Your task to perform on an android device: turn off javascript in the chrome app Image 0: 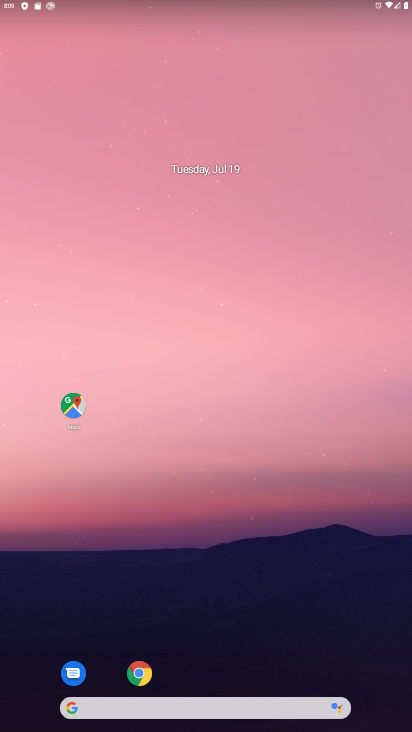
Step 0: drag from (259, 697) to (223, 302)
Your task to perform on an android device: turn off javascript in the chrome app Image 1: 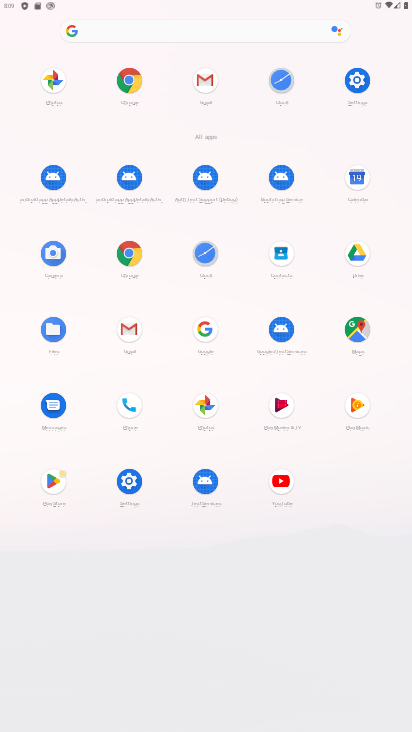
Step 1: click (126, 251)
Your task to perform on an android device: turn off javascript in the chrome app Image 2: 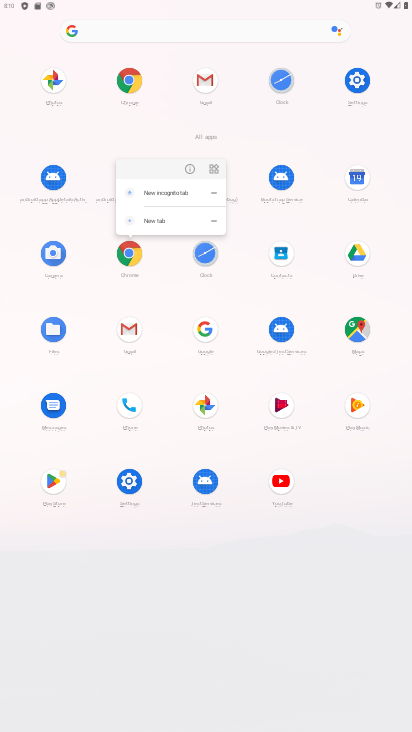
Step 2: click (132, 251)
Your task to perform on an android device: turn off javascript in the chrome app Image 3: 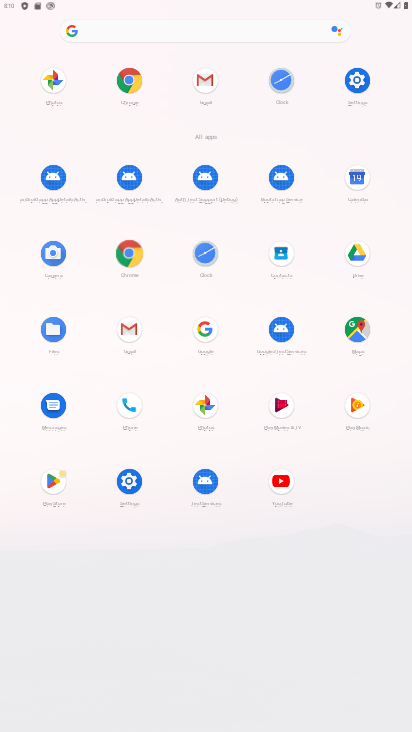
Step 3: click (132, 251)
Your task to perform on an android device: turn off javascript in the chrome app Image 4: 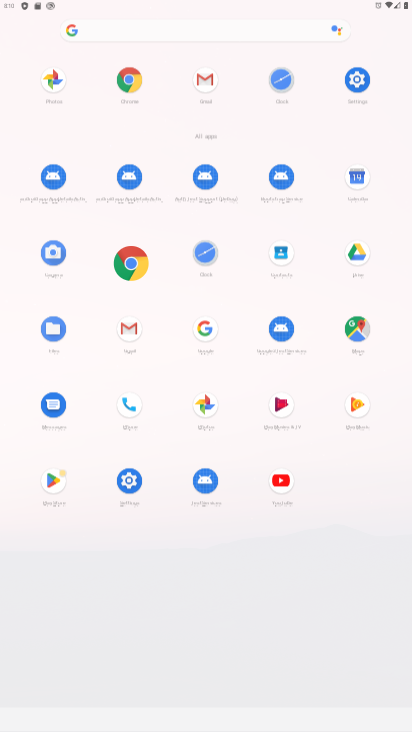
Step 4: click (132, 251)
Your task to perform on an android device: turn off javascript in the chrome app Image 5: 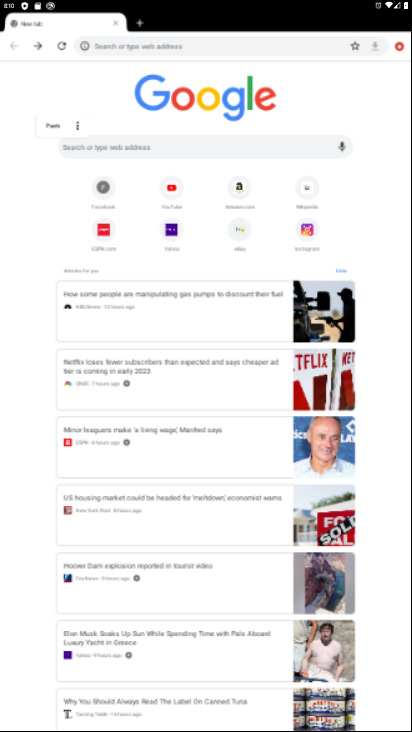
Step 5: click (127, 249)
Your task to perform on an android device: turn off javascript in the chrome app Image 6: 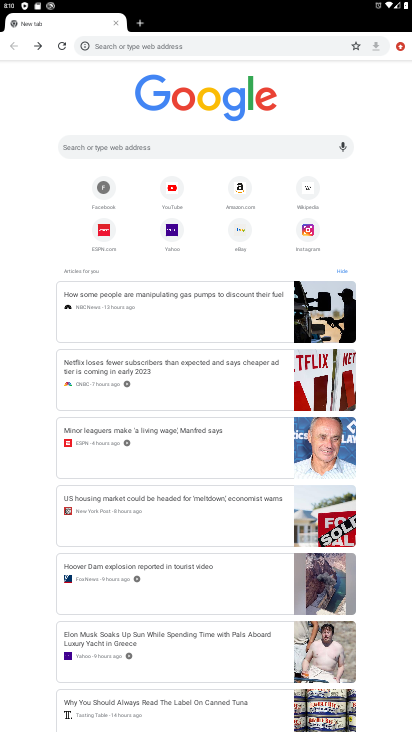
Step 6: click (400, 48)
Your task to perform on an android device: turn off javascript in the chrome app Image 7: 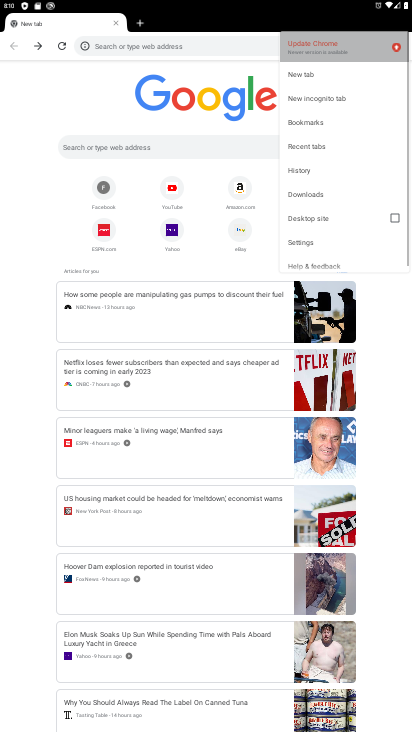
Step 7: click (400, 48)
Your task to perform on an android device: turn off javascript in the chrome app Image 8: 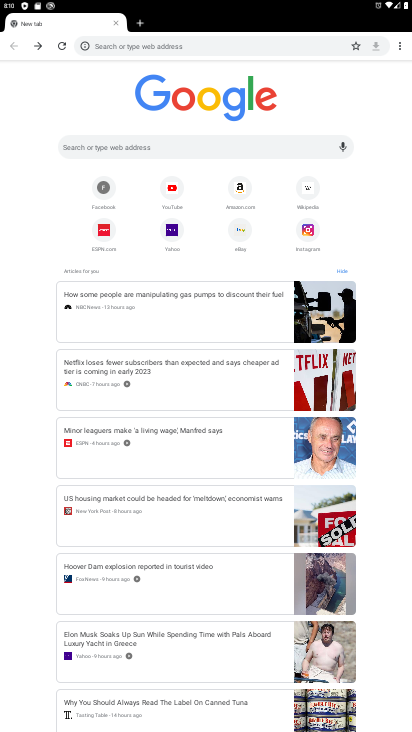
Step 8: click (397, 51)
Your task to perform on an android device: turn off javascript in the chrome app Image 9: 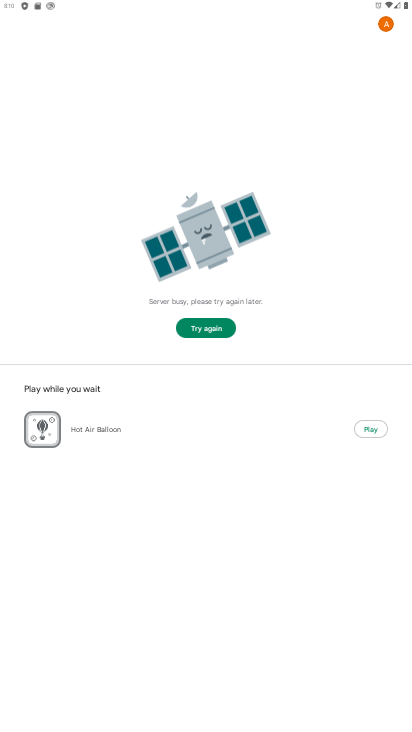
Step 9: press back button
Your task to perform on an android device: turn off javascript in the chrome app Image 10: 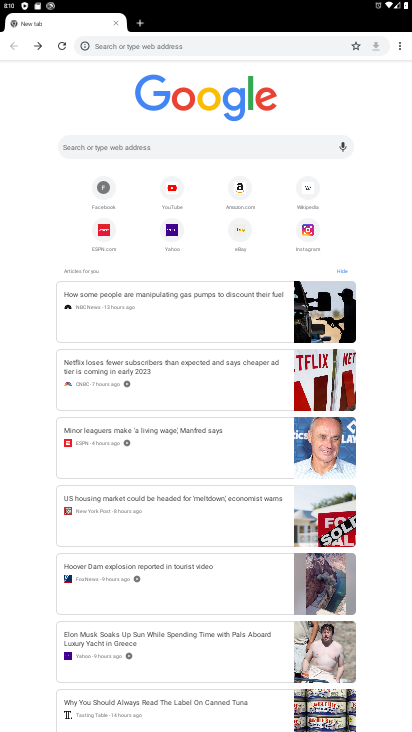
Step 10: drag from (398, 46) to (300, 239)
Your task to perform on an android device: turn off javascript in the chrome app Image 11: 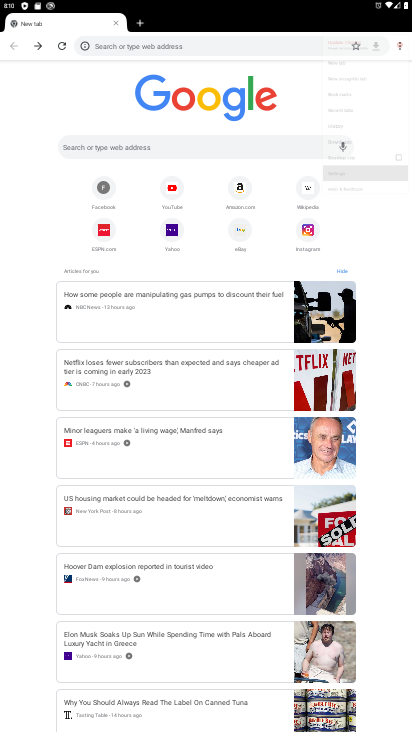
Step 11: click (299, 238)
Your task to perform on an android device: turn off javascript in the chrome app Image 12: 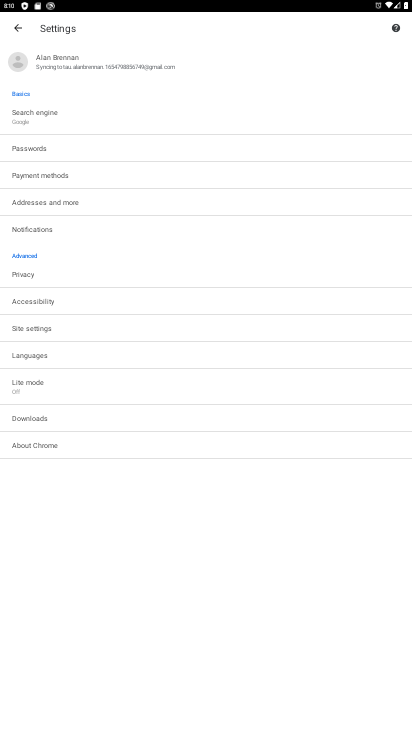
Step 12: click (28, 327)
Your task to perform on an android device: turn off javascript in the chrome app Image 13: 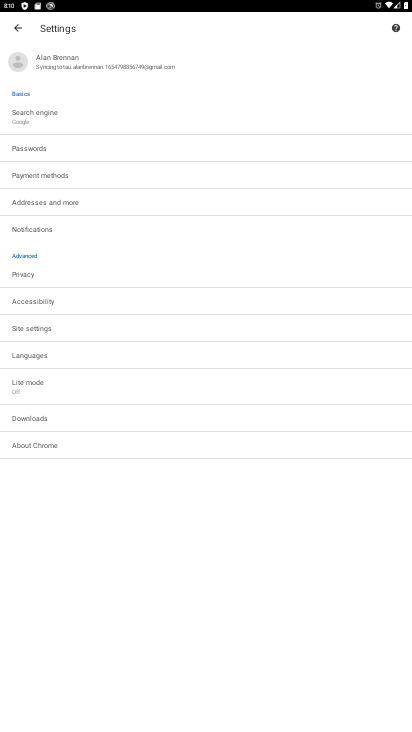
Step 13: click (36, 318)
Your task to perform on an android device: turn off javascript in the chrome app Image 14: 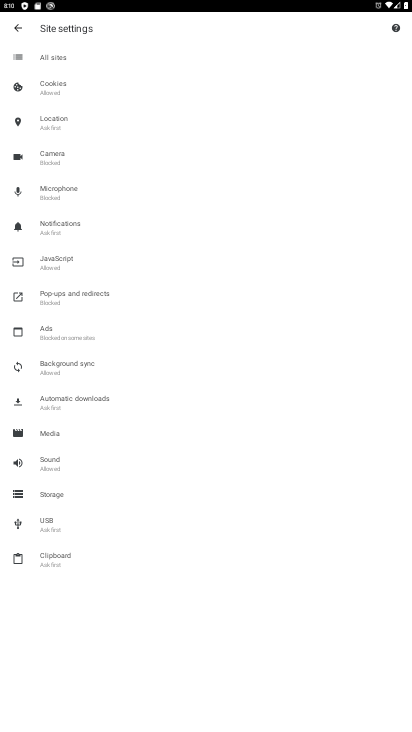
Step 14: click (46, 265)
Your task to perform on an android device: turn off javascript in the chrome app Image 15: 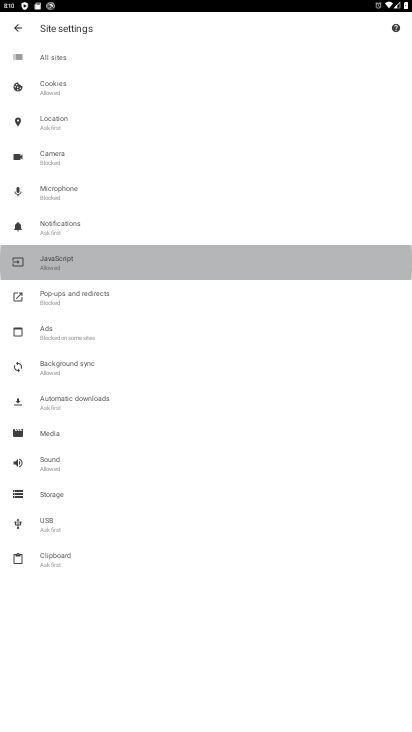
Step 15: click (47, 263)
Your task to perform on an android device: turn off javascript in the chrome app Image 16: 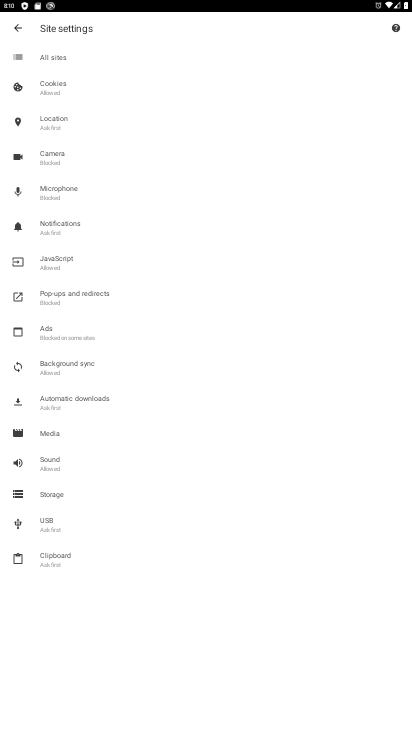
Step 16: click (48, 260)
Your task to perform on an android device: turn off javascript in the chrome app Image 17: 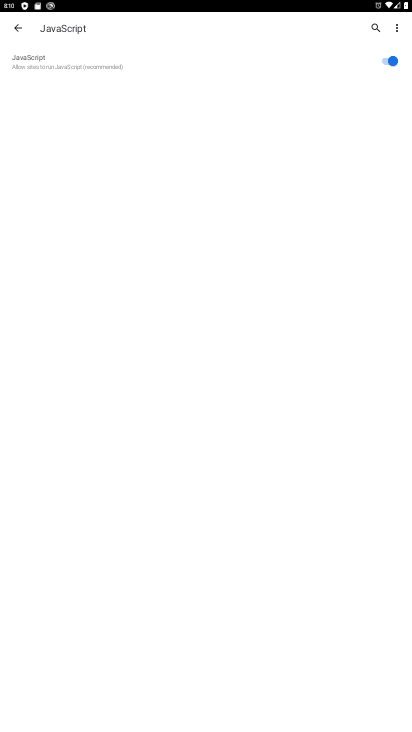
Step 17: click (392, 58)
Your task to perform on an android device: turn off javascript in the chrome app Image 18: 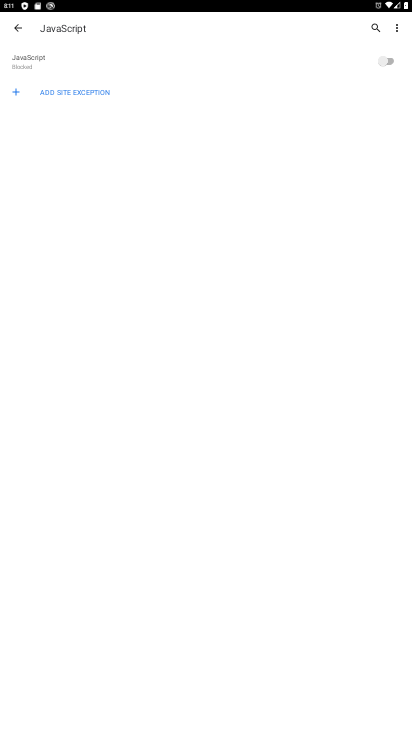
Step 18: task complete